Your task to perform on an android device: Go to accessibility settings Image 0: 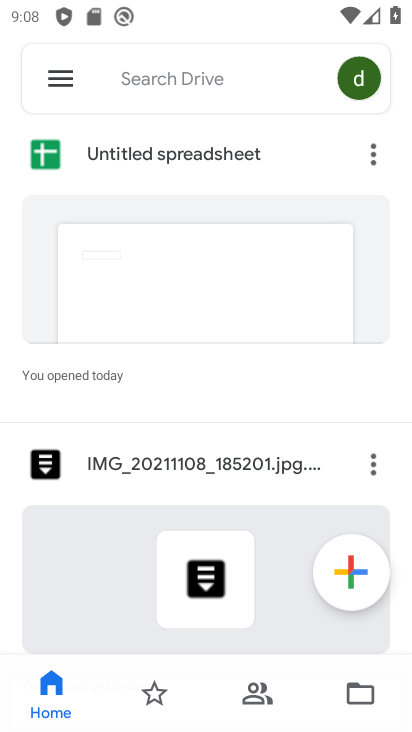
Step 0: press home button
Your task to perform on an android device: Go to accessibility settings Image 1: 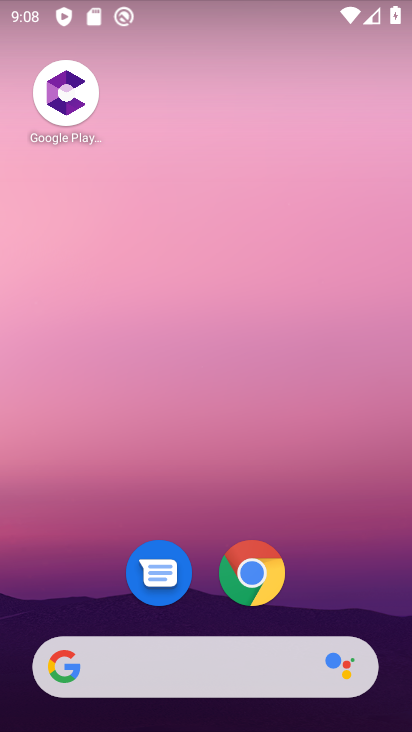
Step 1: drag from (334, 521) to (230, 119)
Your task to perform on an android device: Go to accessibility settings Image 2: 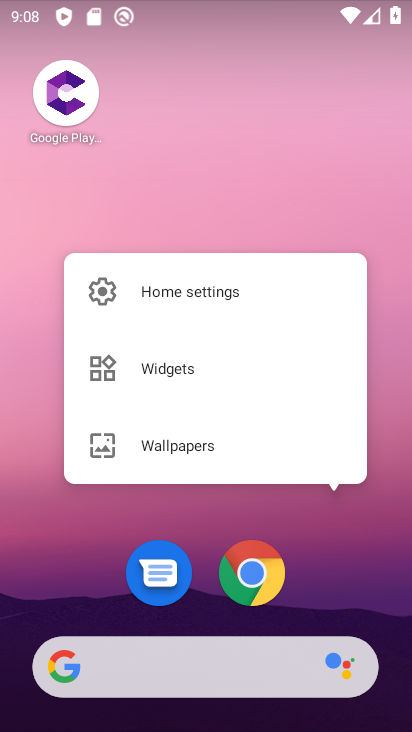
Step 2: click (198, 172)
Your task to perform on an android device: Go to accessibility settings Image 3: 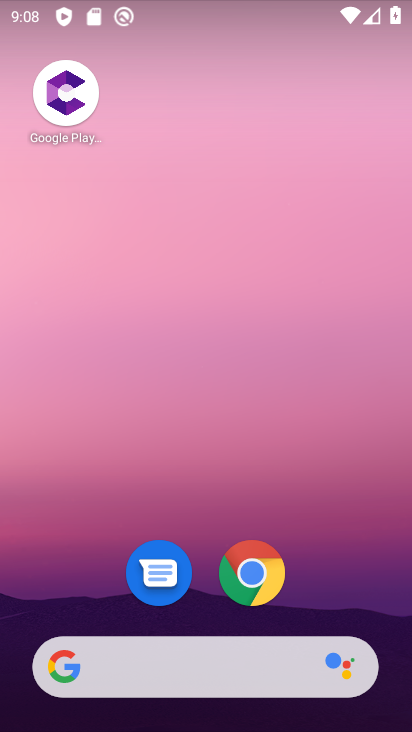
Step 3: drag from (322, 593) to (214, 99)
Your task to perform on an android device: Go to accessibility settings Image 4: 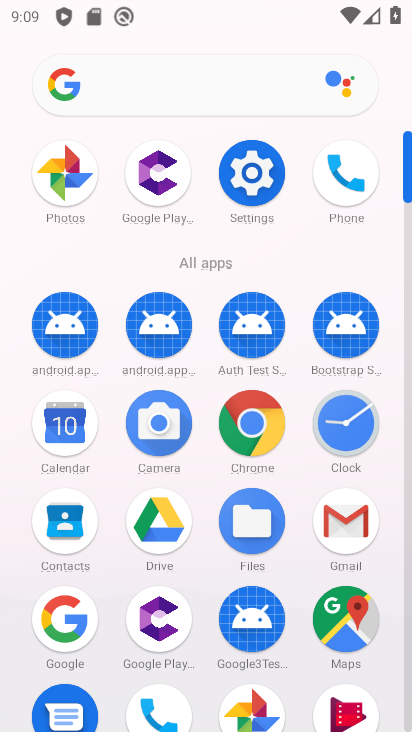
Step 4: click (245, 185)
Your task to perform on an android device: Go to accessibility settings Image 5: 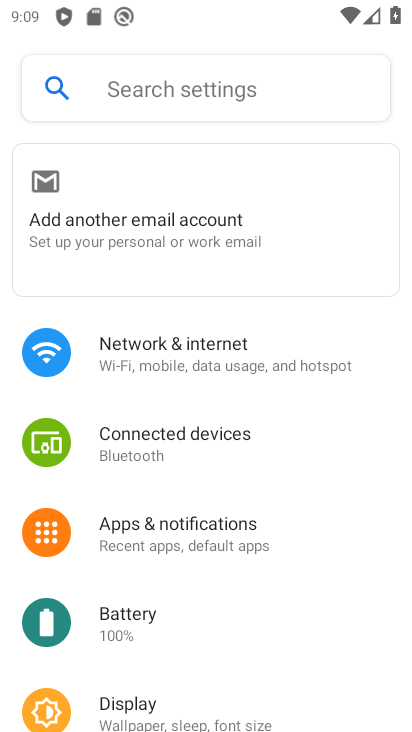
Step 5: drag from (193, 564) to (153, 357)
Your task to perform on an android device: Go to accessibility settings Image 6: 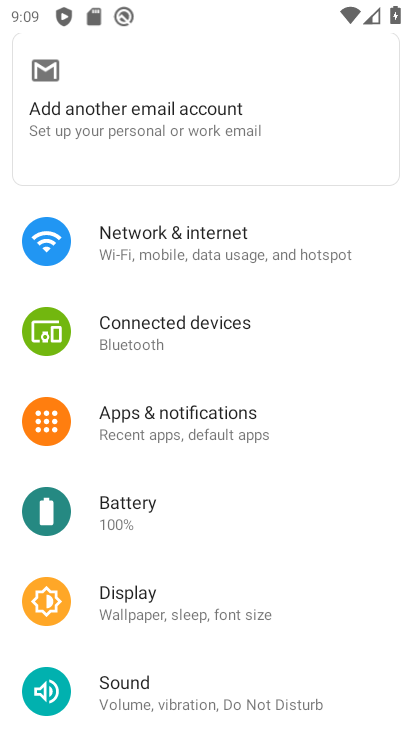
Step 6: drag from (188, 546) to (135, 315)
Your task to perform on an android device: Go to accessibility settings Image 7: 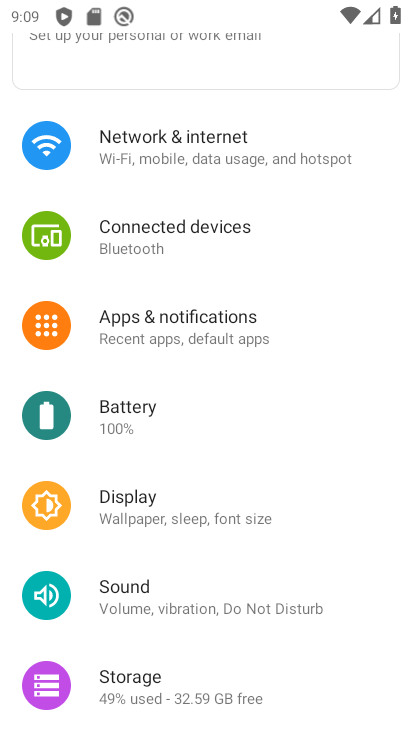
Step 7: drag from (152, 641) to (99, 363)
Your task to perform on an android device: Go to accessibility settings Image 8: 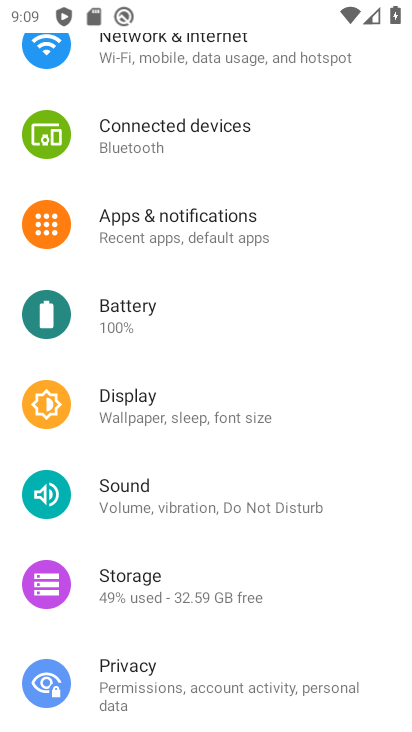
Step 8: drag from (191, 558) to (160, 270)
Your task to perform on an android device: Go to accessibility settings Image 9: 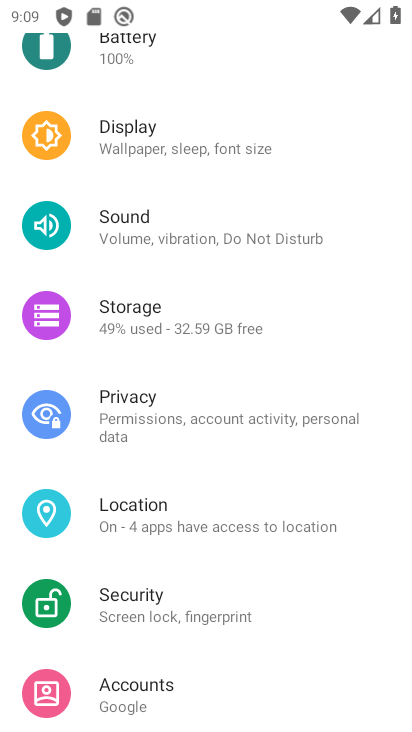
Step 9: drag from (180, 633) to (135, 328)
Your task to perform on an android device: Go to accessibility settings Image 10: 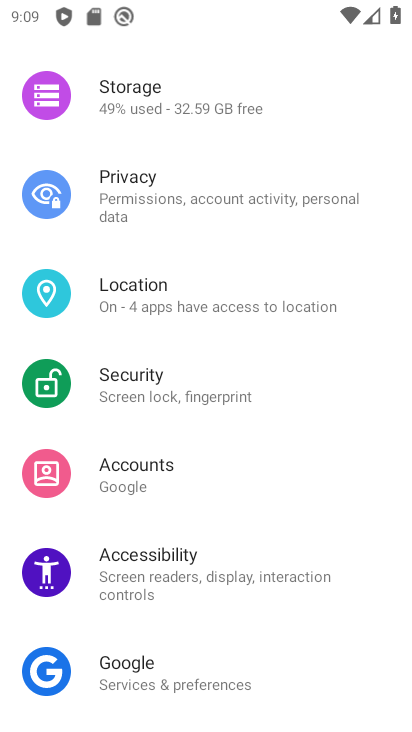
Step 10: click (154, 548)
Your task to perform on an android device: Go to accessibility settings Image 11: 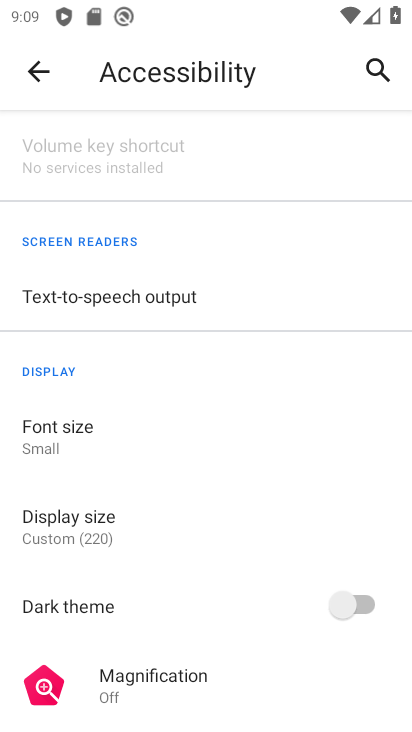
Step 11: task complete